Your task to perform on an android device: check google app version Image 0: 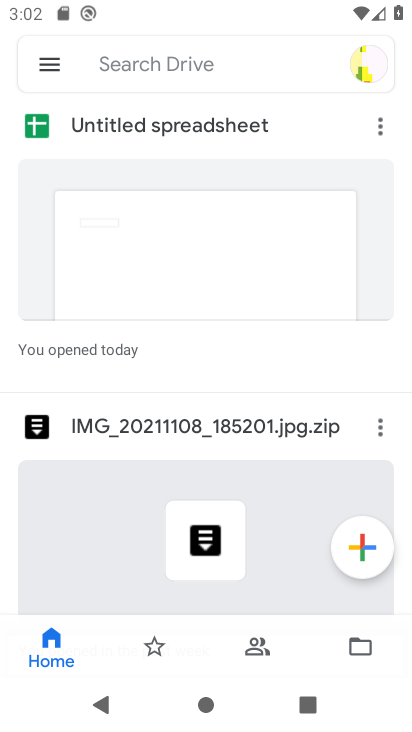
Step 0: press home button
Your task to perform on an android device: check google app version Image 1: 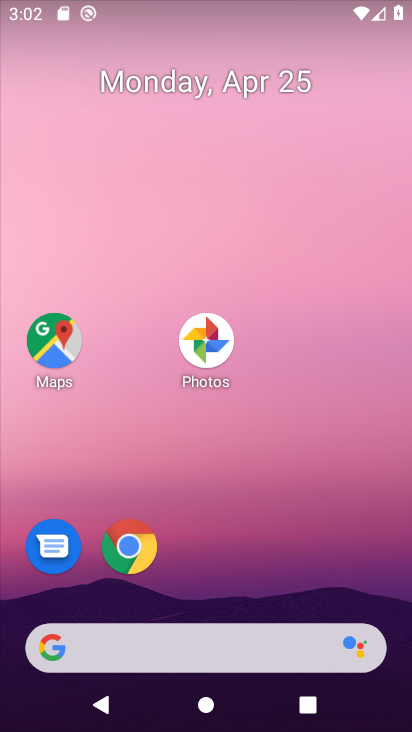
Step 1: drag from (272, 574) to (327, 252)
Your task to perform on an android device: check google app version Image 2: 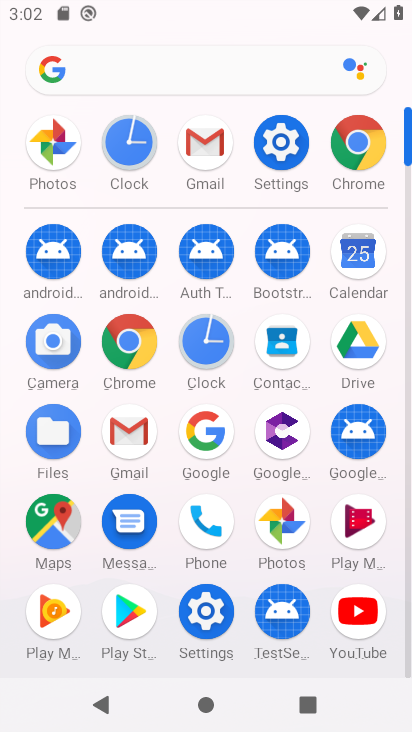
Step 2: click (205, 415)
Your task to perform on an android device: check google app version Image 3: 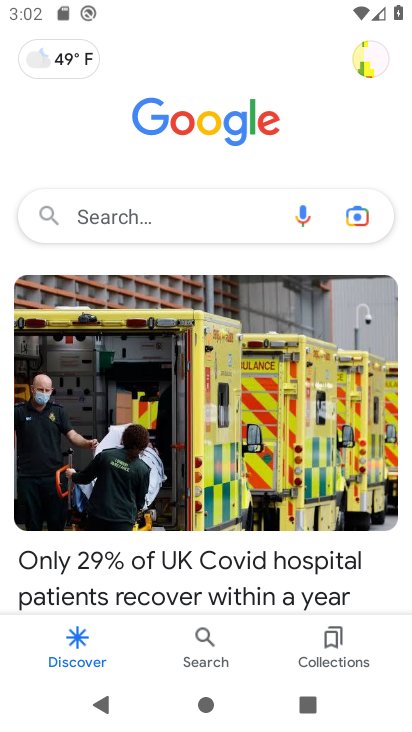
Step 3: click (364, 64)
Your task to perform on an android device: check google app version Image 4: 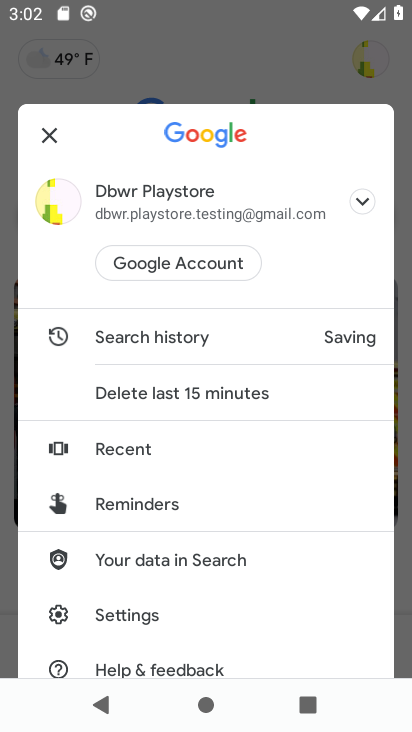
Step 4: drag from (248, 632) to (233, 214)
Your task to perform on an android device: check google app version Image 5: 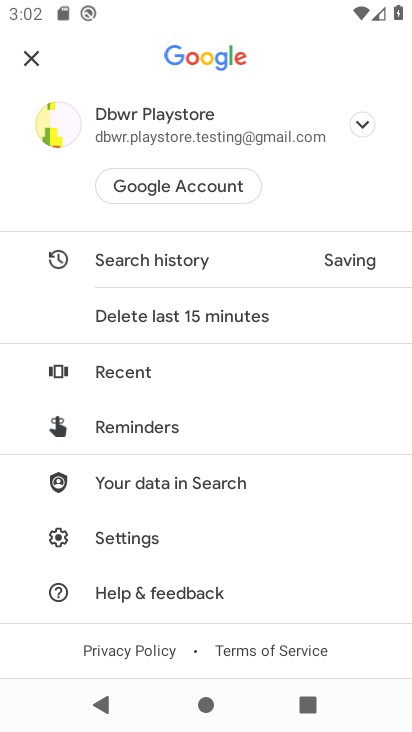
Step 5: click (128, 543)
Your task to perform on an android device: check google app version Image 6: 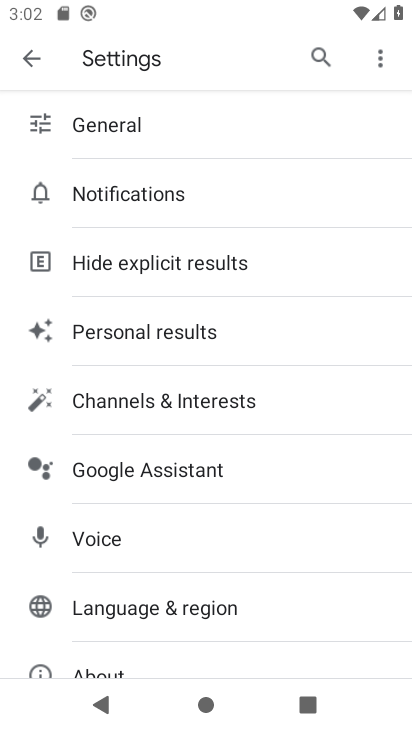
Step 6: drag from (177, 577) to (192, 242)
Your task to perform on an android device: check google app version Image 7: 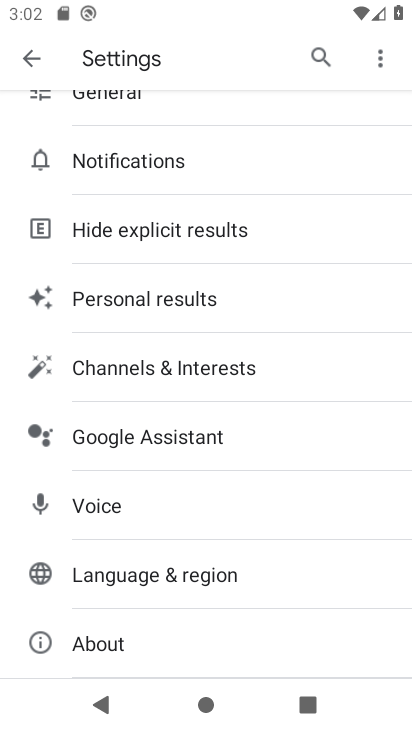
Step 7: click (159, 637)
Your task to perform on an android device: check google app version Image 8: 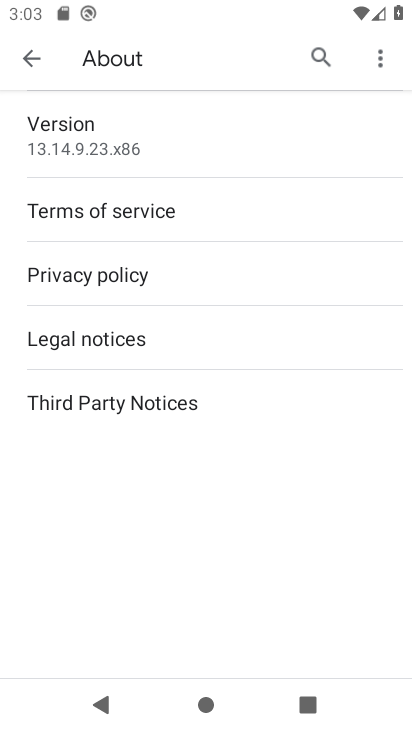
Step 8: task complete